Your task to perform on an android device: How do I get to the nearest T-Mobile Store? Image 0: 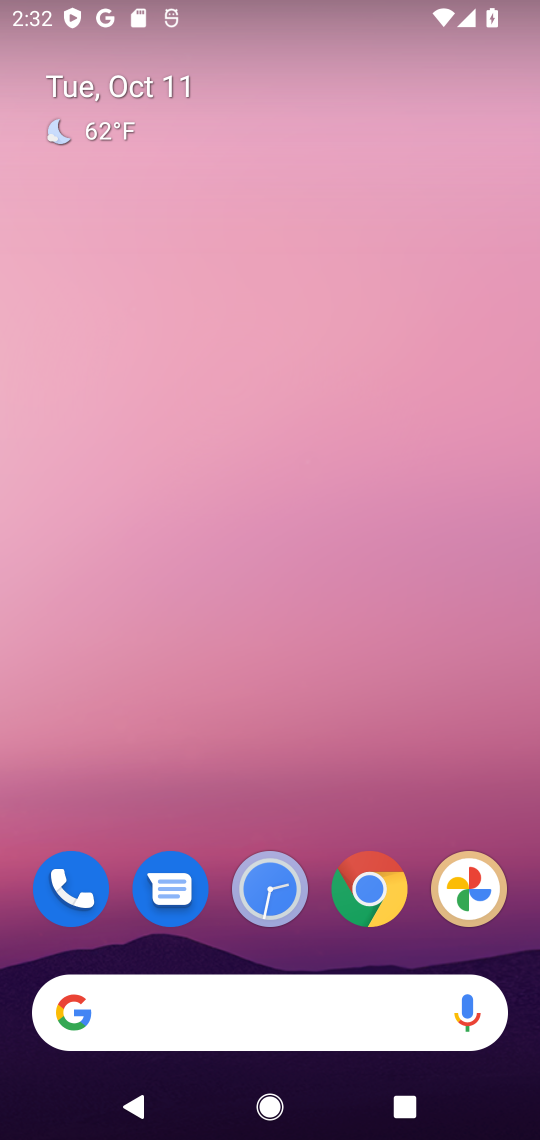
Step 0: drag from (280, 968) to (293, 376)
Your task to perform on an android device: How do I get to the nearest T-Mobile Store? Image 1: 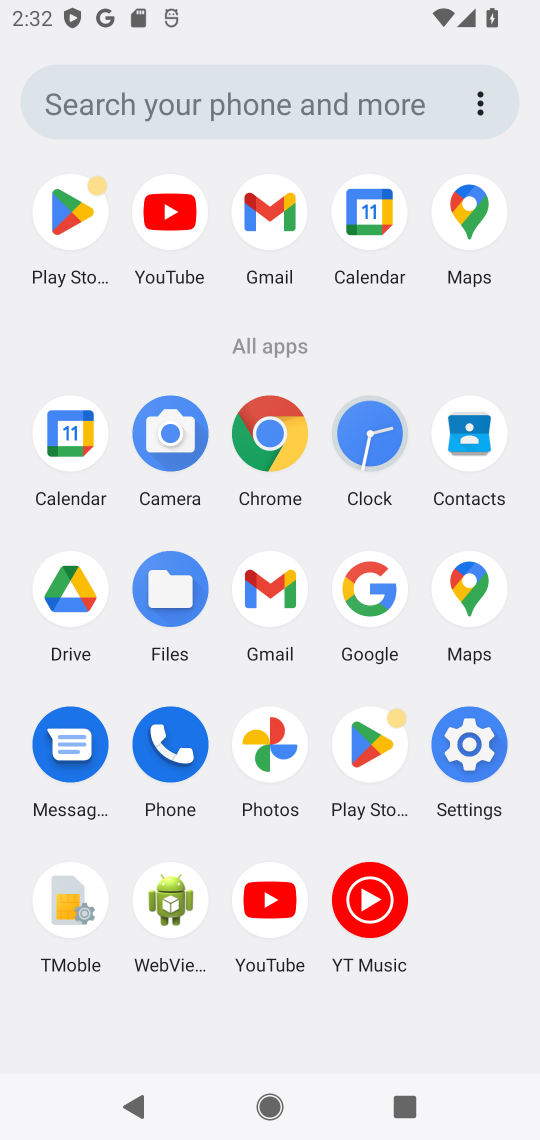
Step 1: click (360, 575)
Your task to perform on an android device: How do I get to the nearest T-Mobile Store? Image 2: 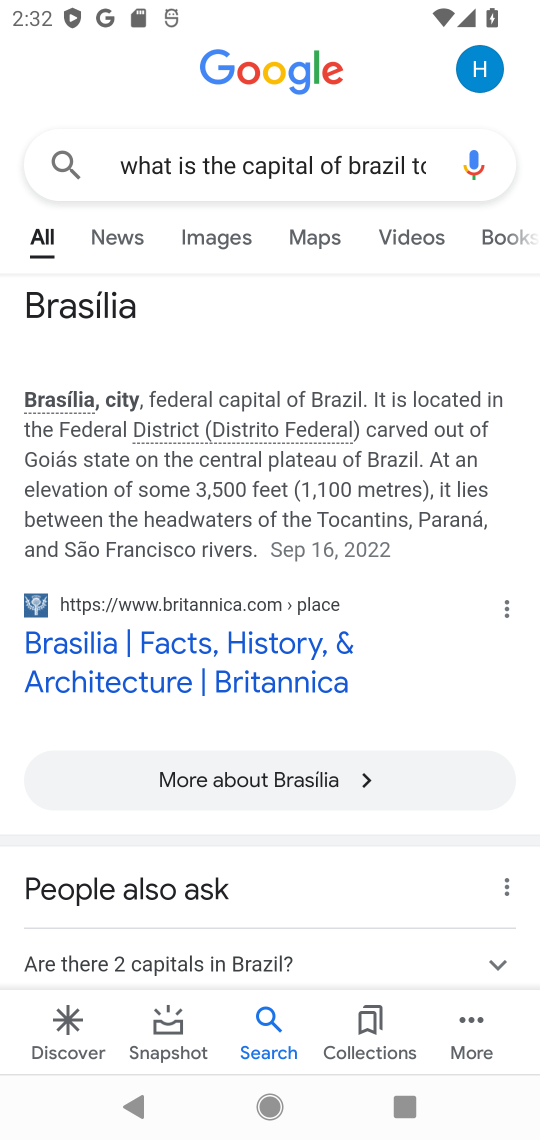
Step 2: click (256, 157)
Your task to perform on an android device: How do I get to the nearest T-Mobile Store? Image 3: 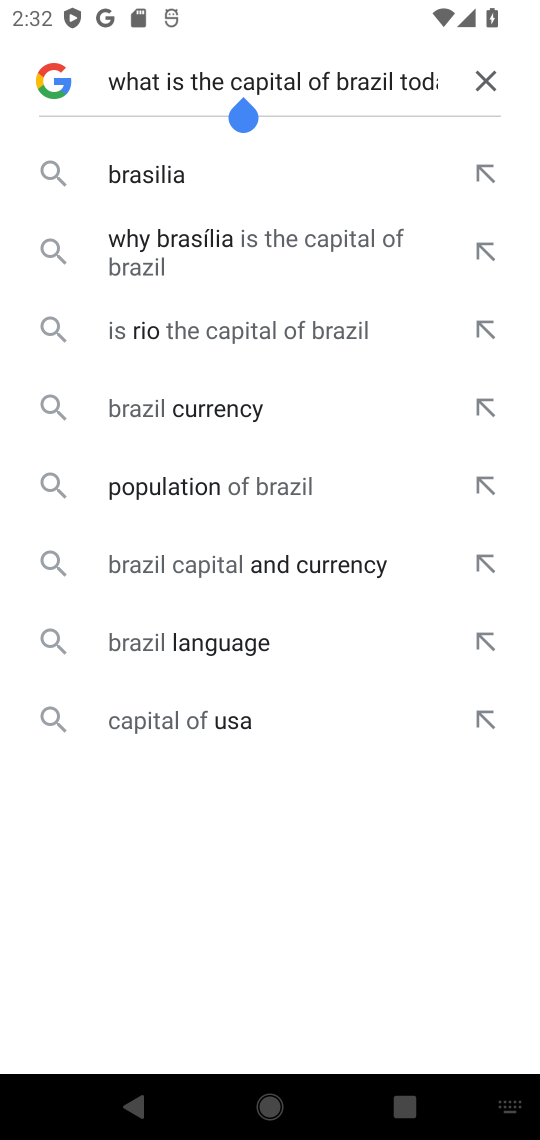
Step 3: click (475, 73)
Your task to perform on an android device: How do I get to the nearest T-Mobile Store? Image 4: 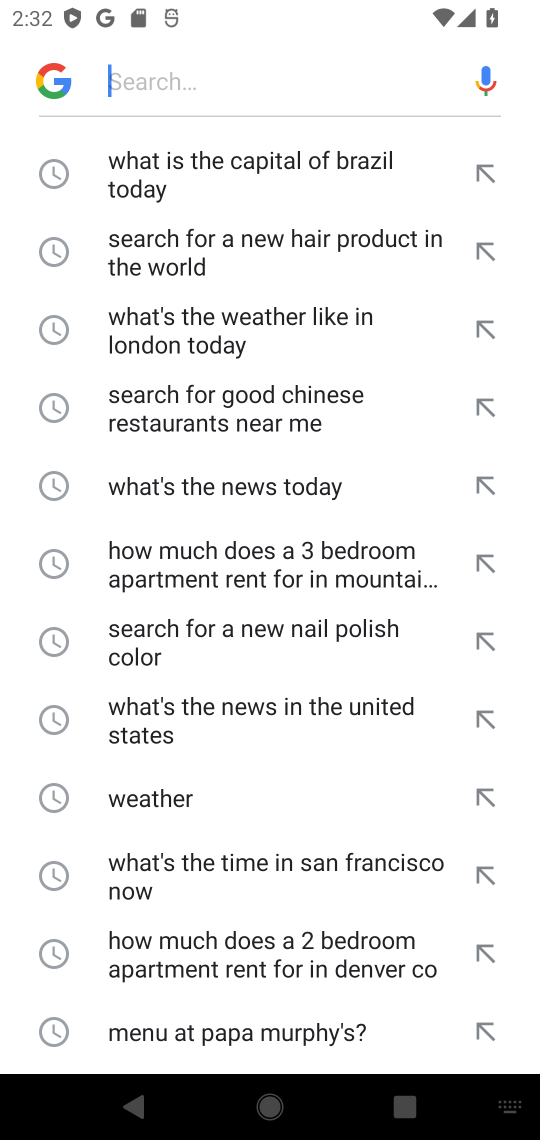
Step 4: click (236, 71)
Your task to perform on an android device: How do I get to the nearest T-Mobile Store? Image 5: 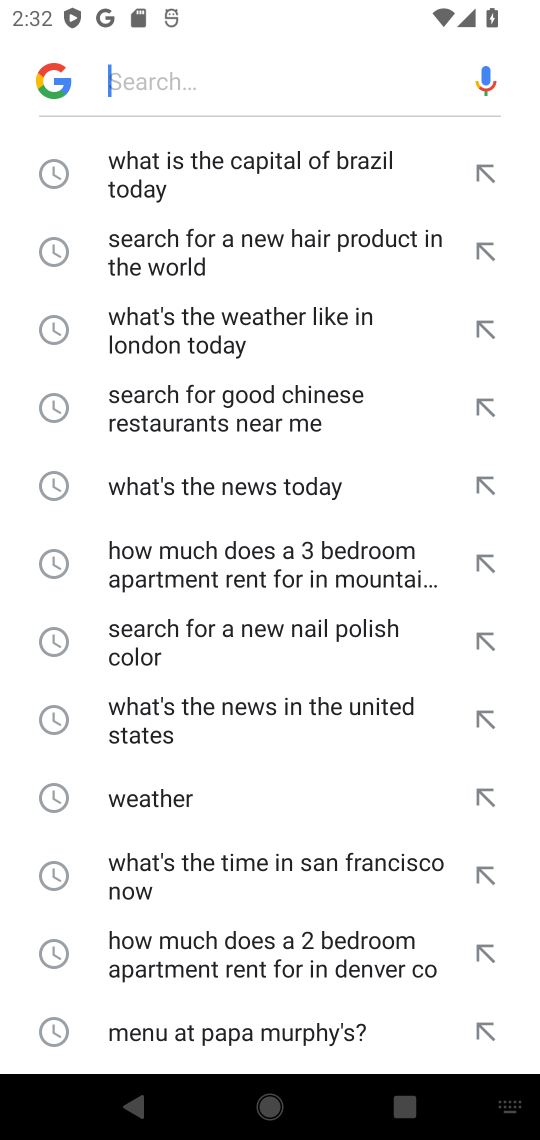
Step 5: type "How do I get to the nearest T-Mobile Store? "
Your task to perform on an android device: How do I get to the nearest T-Mobile Store? Image 6: 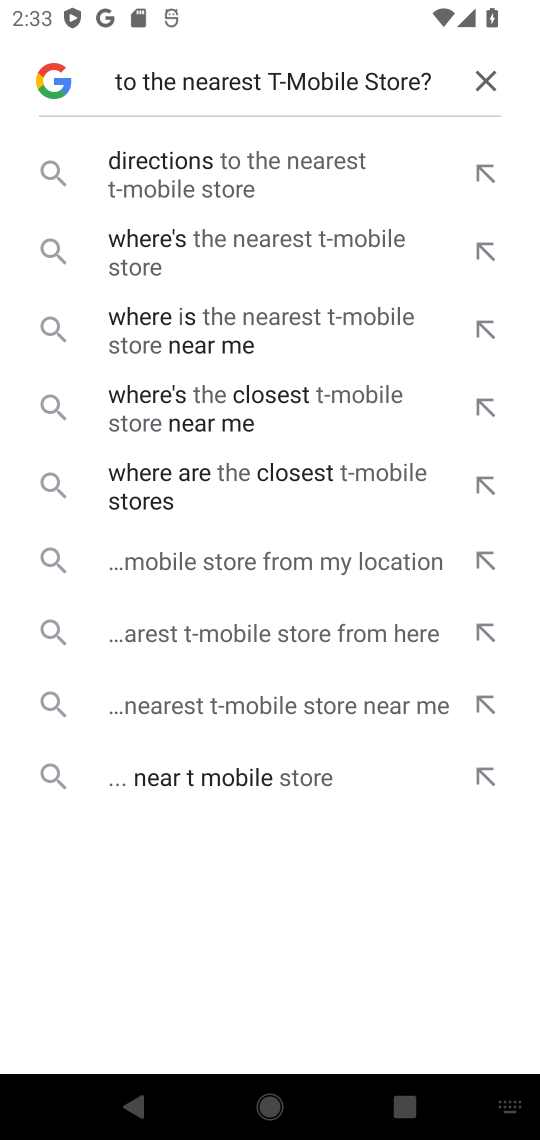
Step 6: click (160, 183)
Your task to perform on an android device: How do I get to the nearest T-Mobile Store? Image 7: 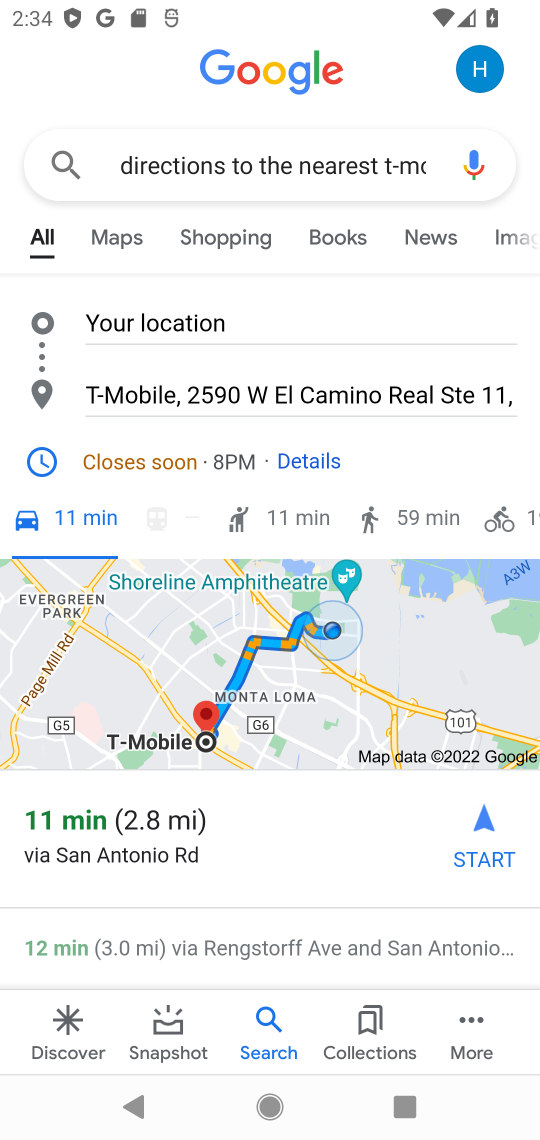
Step 7: drag from (316, 813) to (338, 285)
Your task to perform on an android device: How do I get to the nearest T-Mobile Store? Image 8: 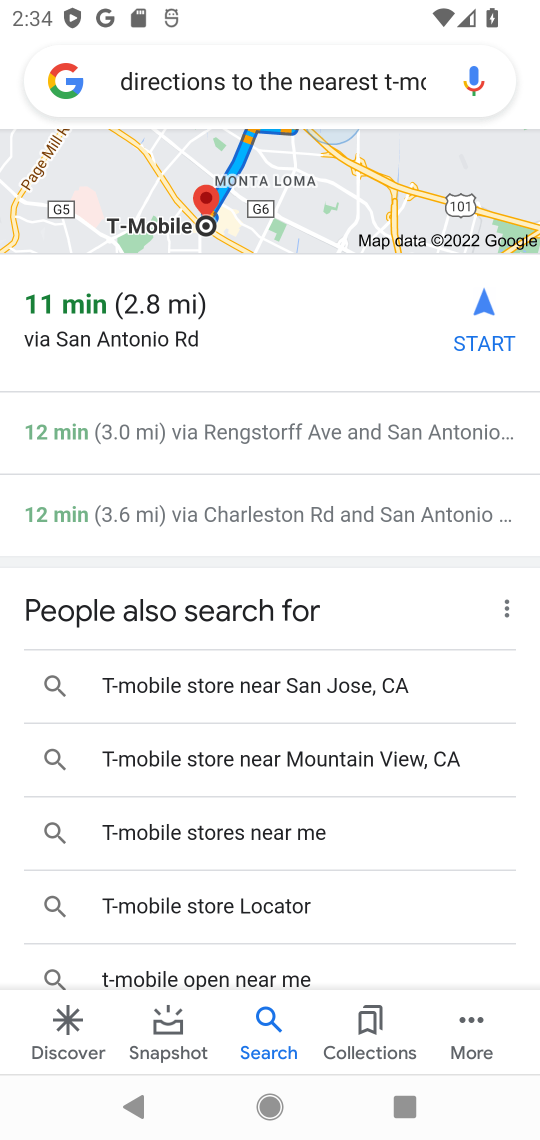
Step 8: drag from (230, 885) to (334, 454)
Your task to perform on an android device: How do I get to the nearest T-Mobile Store? Image 9: 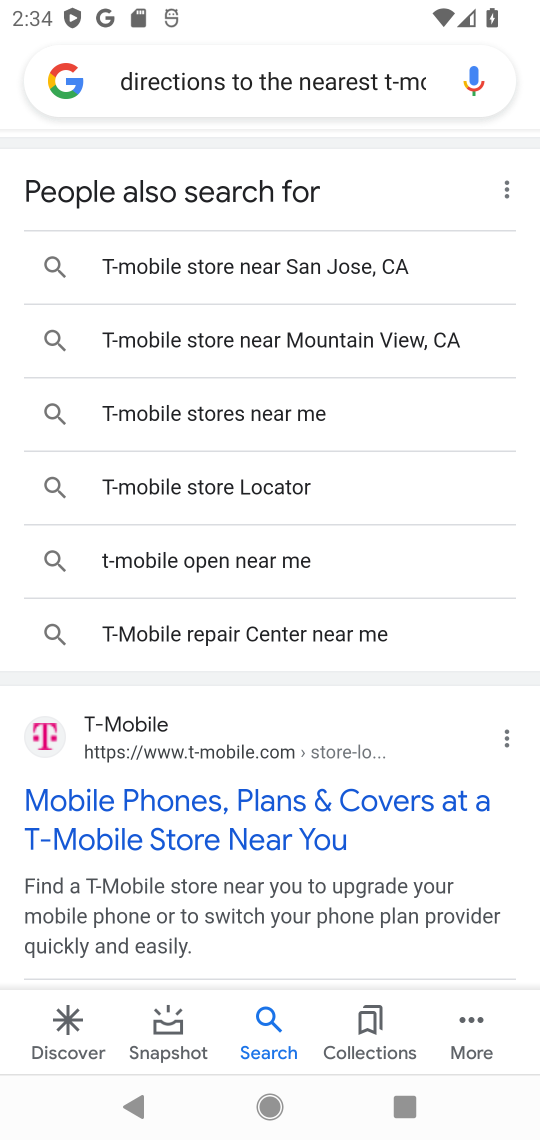
Step 9: click (243, 840)
Your task to perform on an android device: How do I get to the nearest T-Mobile Store? Image 10: 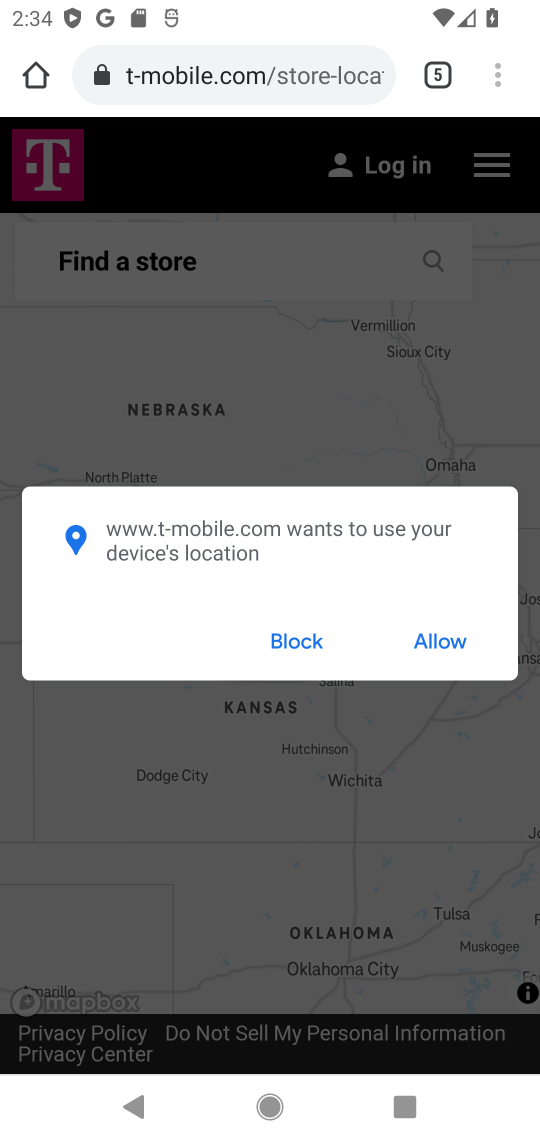
Step 10: click (413, 637)
Your task to perform on an android device: How do I get to the nearest T-Mobile Store? Image 11: 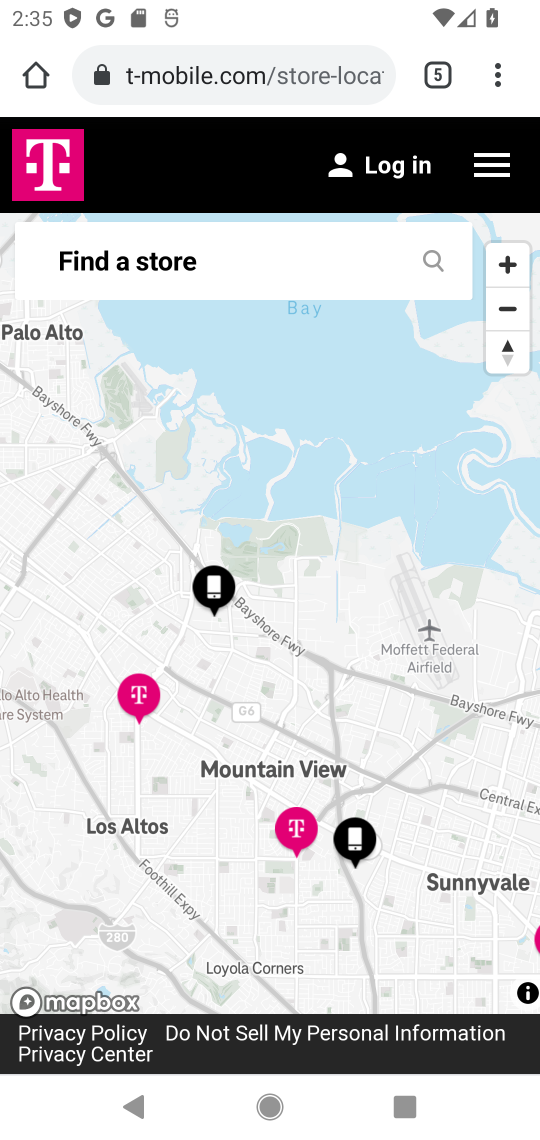
Step 11: task complete